Your task to perform on an android device: Look up the best rated kitchen knives on Amazon. Image 0: 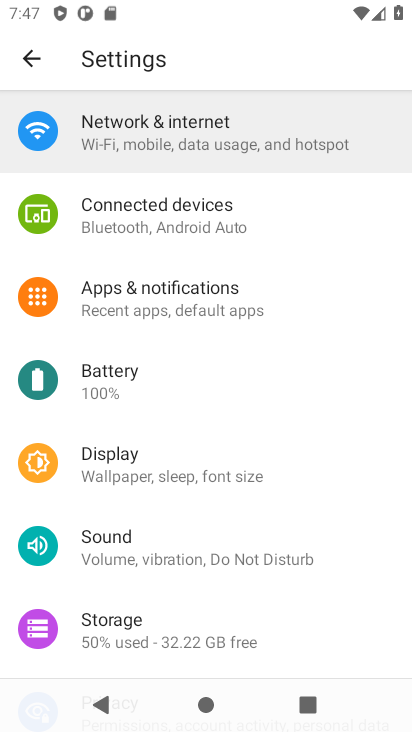
Step 0: press home button
Your task to perform on an android device: Look up the best rated kitchen knives on Amazon. Image 1: 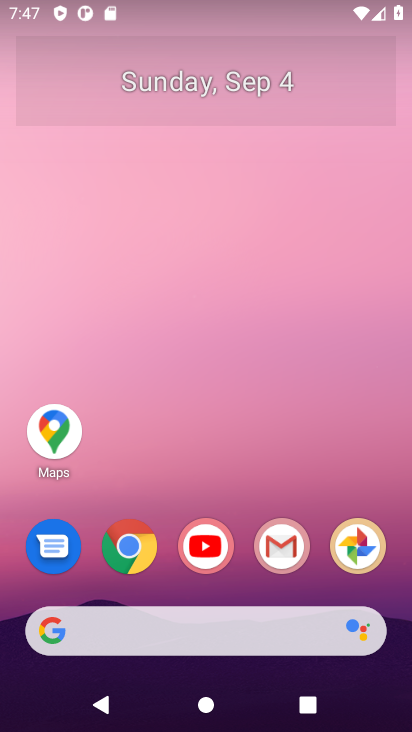
Step 1: click (134, 551)
Your task to perform on an android device: Look up the best rated kitchen knives on Amazon. Image 2: 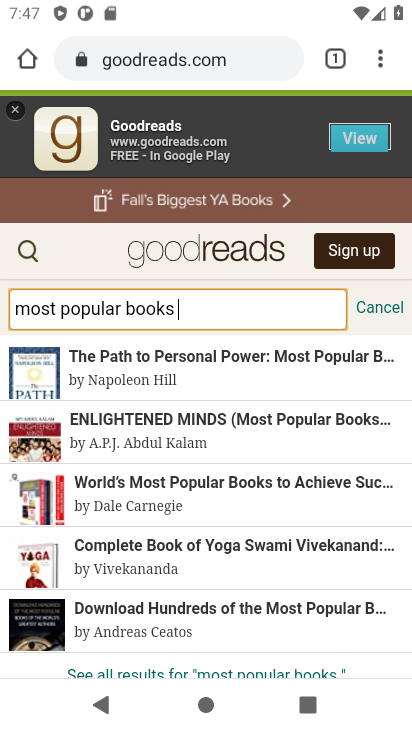
Step 2: click (135, 66)
Your task to perform on an android device: Look up the best rated kitchen knives on Amazon. Image 3: 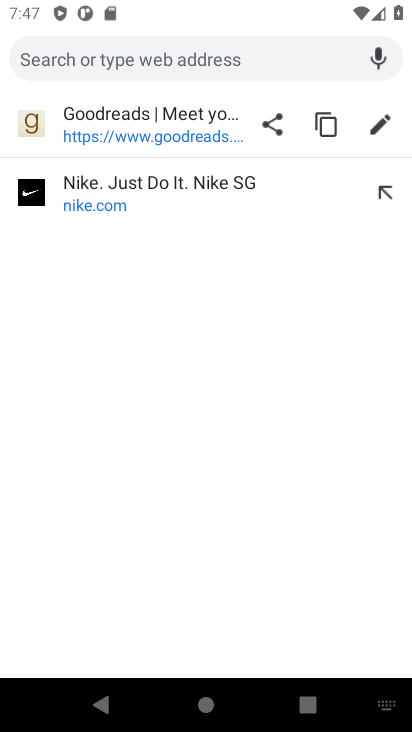
Step 3: type "amazon"
Your task to perform on an android device: Look up the best rated kitchen knives on Amazon. Image 4: 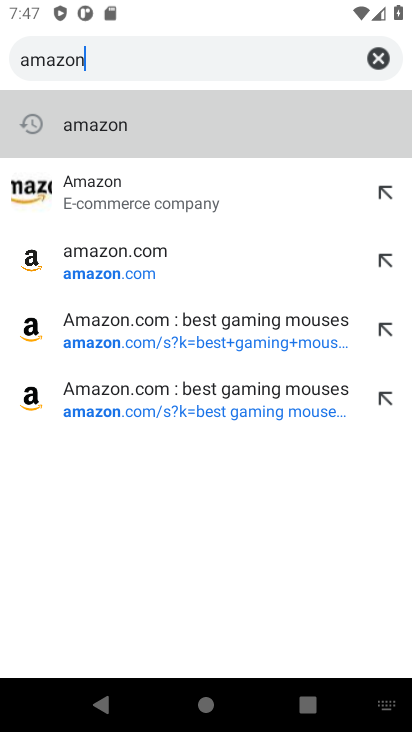
Step 4: click (101, 200)
Your task to perform on an android device: Look up the best rated kitchen knives on Amazon. Image 5: 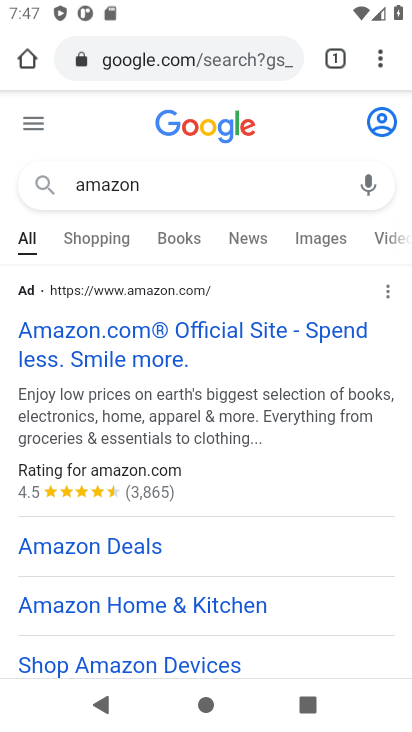
Step 5: click (49, 341)
Your task to perform on an android device: Look up the best rated kitchen knives on Amazon. Image 6: 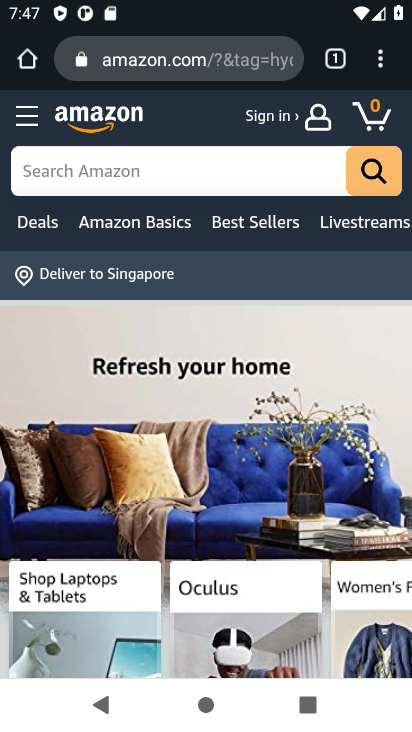
Step 6: click (177, 175)
Your task to perform on an android device: Look up the best rated kitchen knives on Amazon. Image 7: 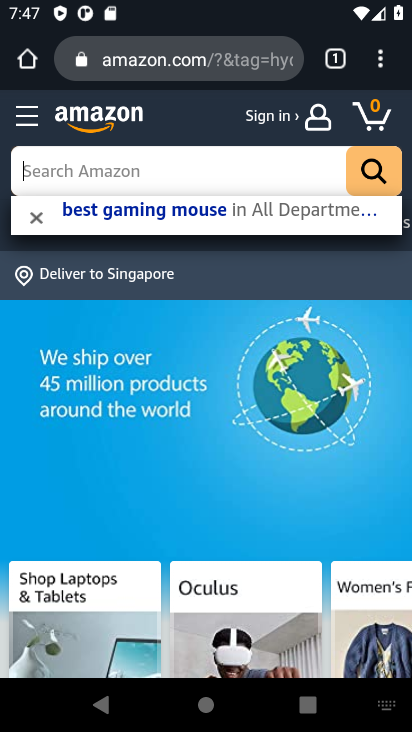
Step 7: type "best rated kitchen knives"
Your task to perform on an android device: Look up the best rated kitchen knives on Amazon. Image 8: 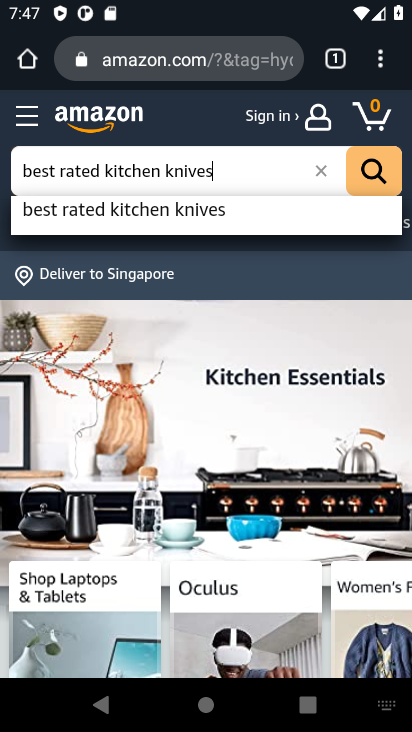
Step 8: click (152, 216)
Your task to perform on an android device: Look up the best rated kitchen knives on Amazon. Image 9: 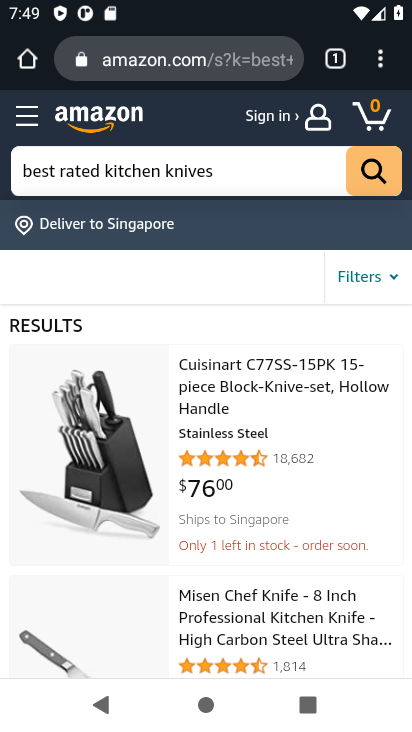
Step 9: task complete